Your task to perform on an android device: see sites visited before in the chrome app Image 0: 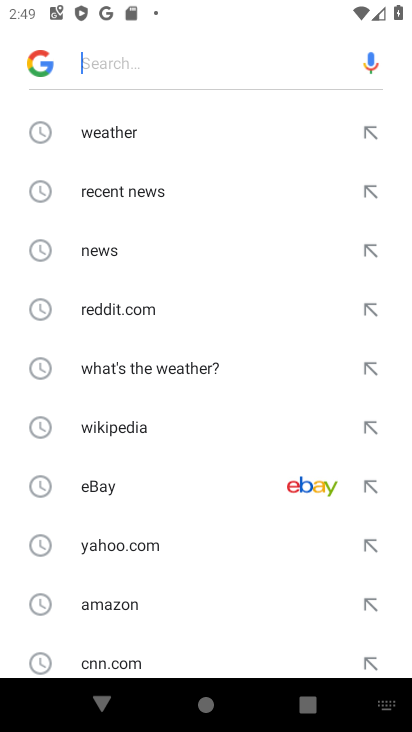
Step 0: press home button
Your task to perform on an android device: see sites visited before in the chrome app Image 1: 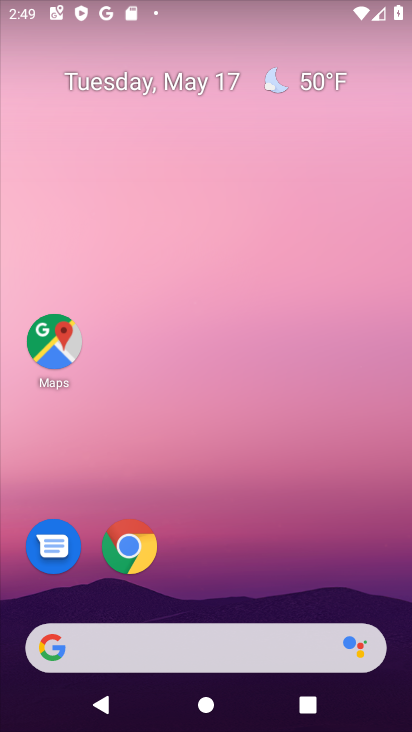
Step 1: click (132, 545)
Your task to perform on an android device: see sites visited before in the chrome app Image 2: 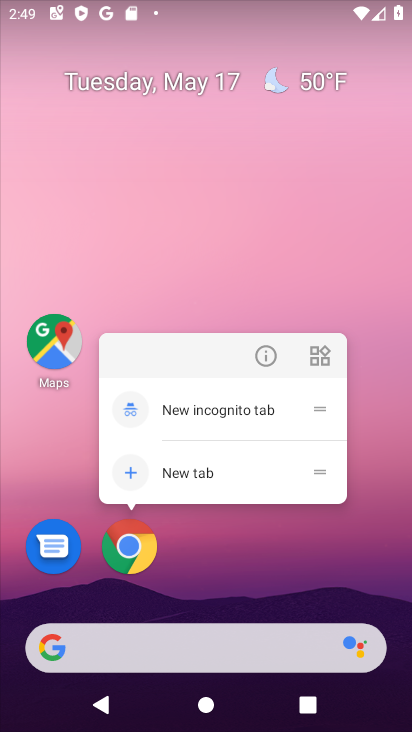
Step 2: click (136, 535)
Your task to perform on an android device: see sites visited before in the chrome app Image 3: 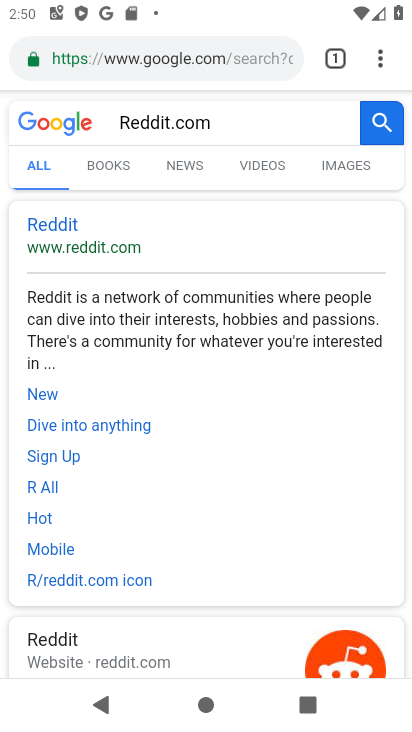
Step 3: click (382, 59)
Your task to perform on an android device: see sites visited before in the chrome app Image 4: 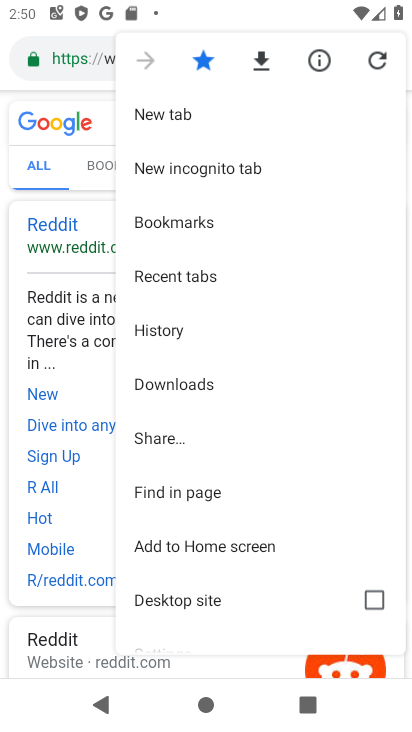
Step 4: click (179, 324)
Your task to perform on an android device: see sites visited before in the chrome app Image 5: 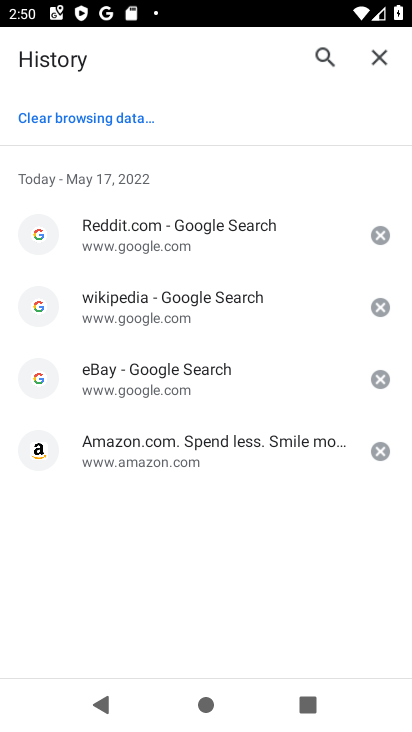
Step 5: task complete